Your task to perform on an android device: show emergency info Image 0: 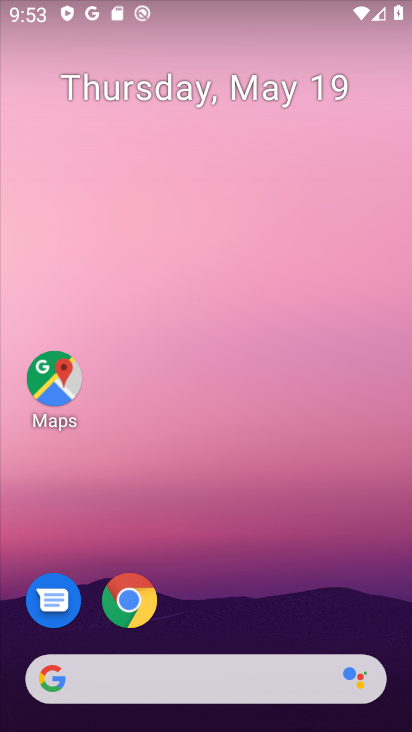
Step 0: drag from (276, 553) to (210, 1)
Your task to perform on an android device: show emergency info Image 1: 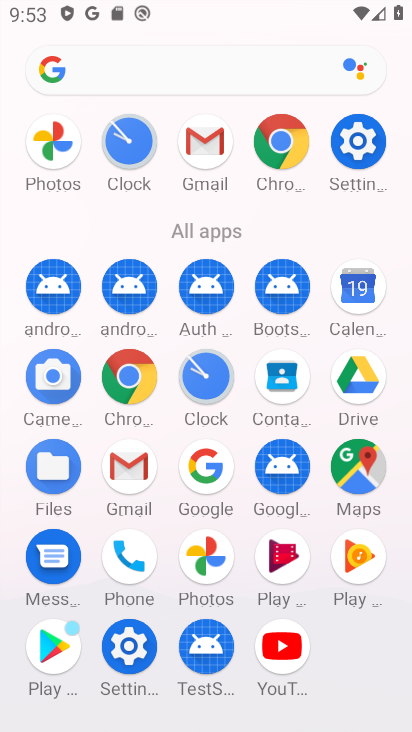
Step 1: click (124, 643)
Your task to perform on an android device: show emergency info Image 2: 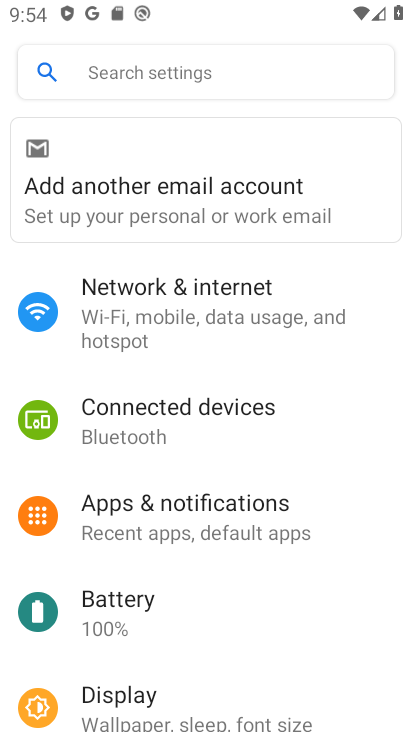
Step 2: drag from (175, 621) to (220, 127)
Your task to perform on an android device: show emergency info Image 3: 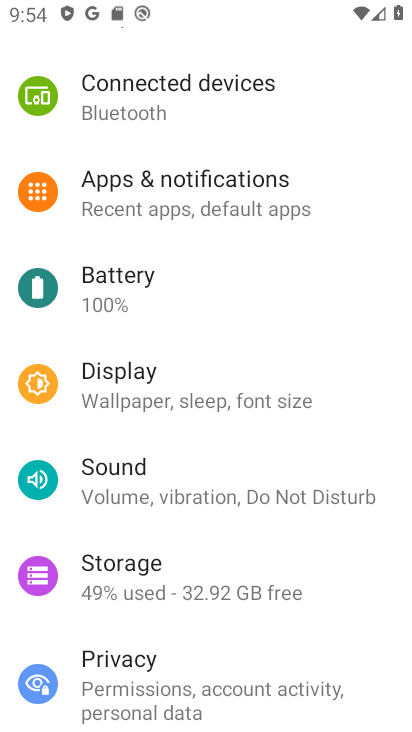
Step 3: drag from (279, 589) to (270, 110)
Your task to perform on an android device: show emergency info Image 4: 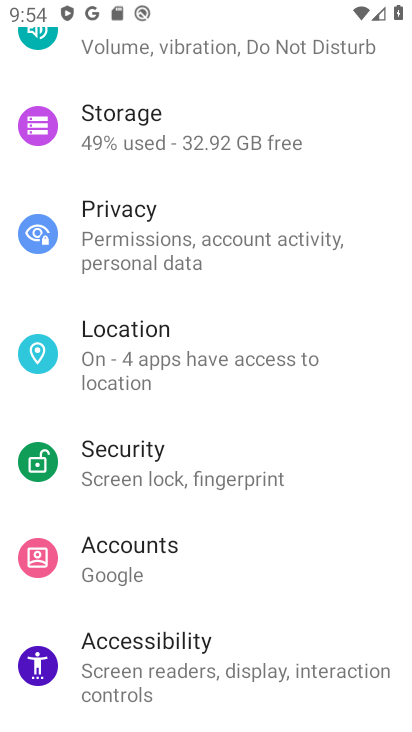
Step 4: drag from (254, 609) to (251, 139)
Your task to perform on an android device: show emergency info Image 5: 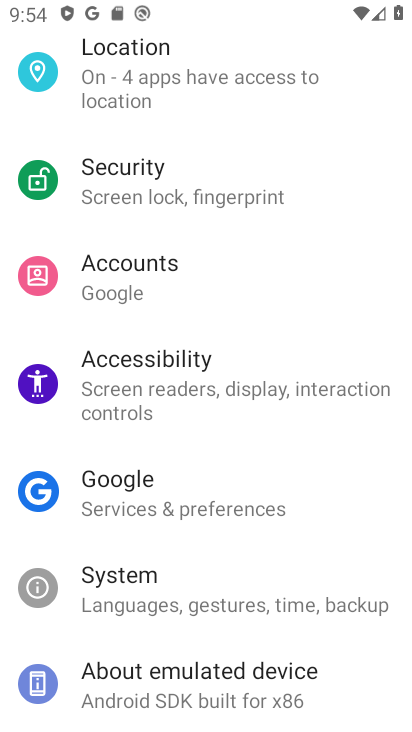
Step 5: drag from (280, 618) to (278, 147)
Your task to perform on an android device: show emergency info Image 6: 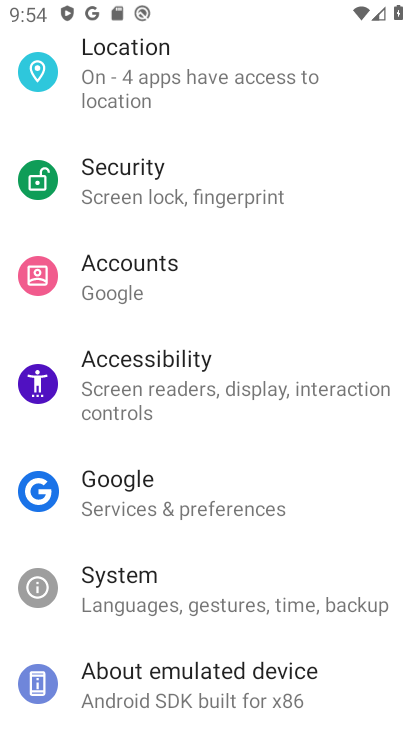
Step 6: click (174, 680)
Your task to perform on an android device: show emergency info Image 7: 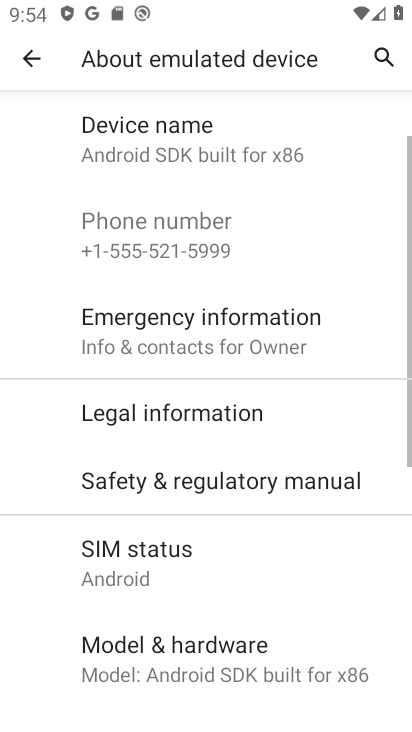
Step 7: drag from (223, 583) to (257, 144)
Your task to perform on an android device: show emergency info Image 8: 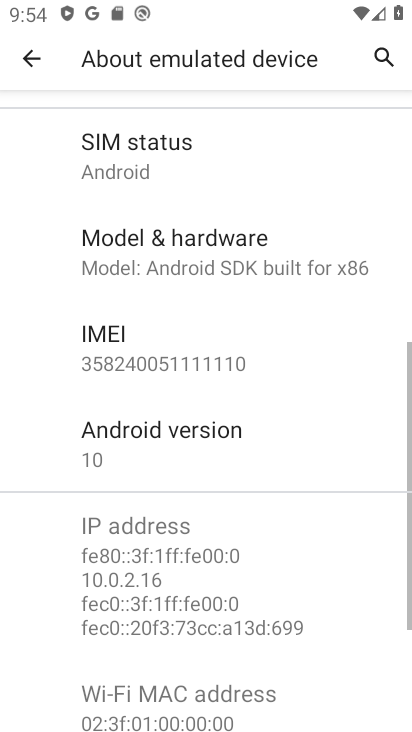
Step 8: drag from (237, 637) to (274, 123)
Your task to perform on an android device: show emergency info Image 9: 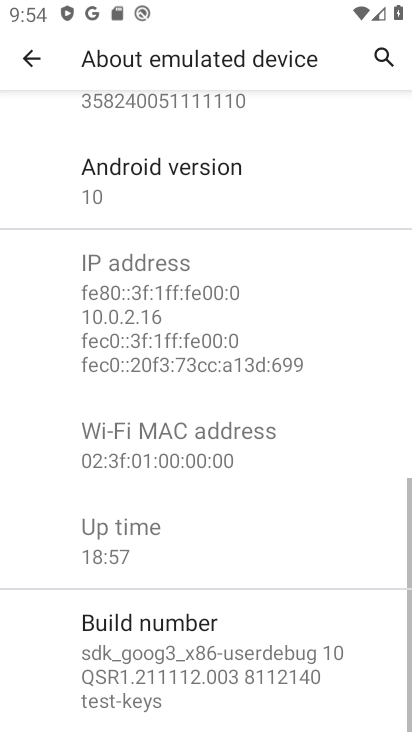
Step 9: drag from (253, 572) to (259, 162)
Your task to perform on an android device: show emergency info Image 10: 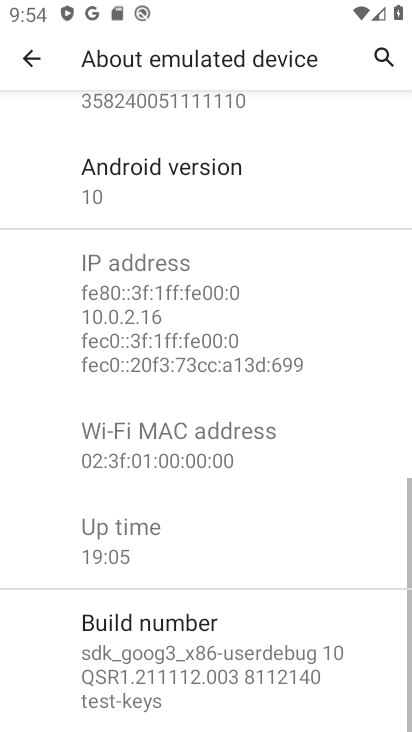
Step 10: drag from (147, 195) to (194, 601)
Your task to perform on an android device: show emergency info Image 11: 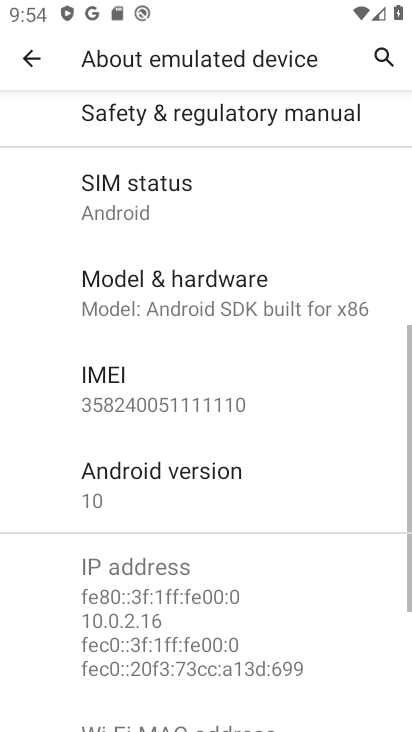
Step 11: drag from (251, 122) to (292, 567)
Your task to perform on an android device: show emergency info Image 12: 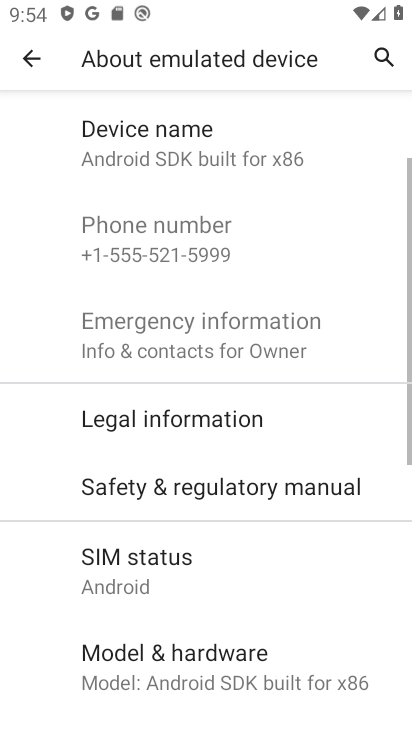
Step 12: drag from (254, 127) to (261, 580)
Your task to perform on an android device: show emergency info Image 13: 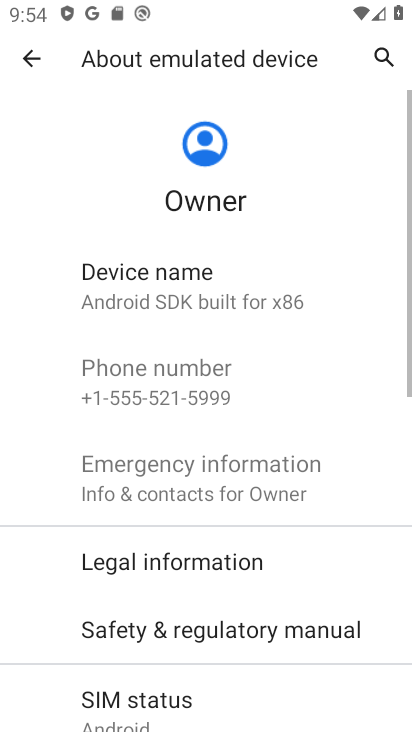
Step 13: click (31, 55)
Your task to perform on an android device: show emergency info Image 14: 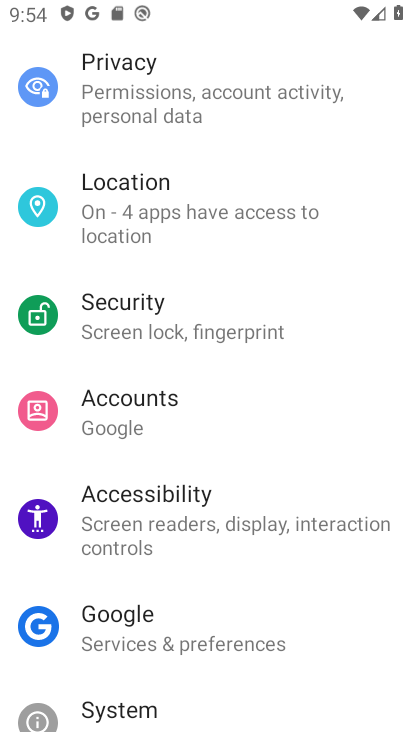
Step 14: drag from (264, 667) to (271, 266)
Your task to perform on an android device: show emergency info Image 15: 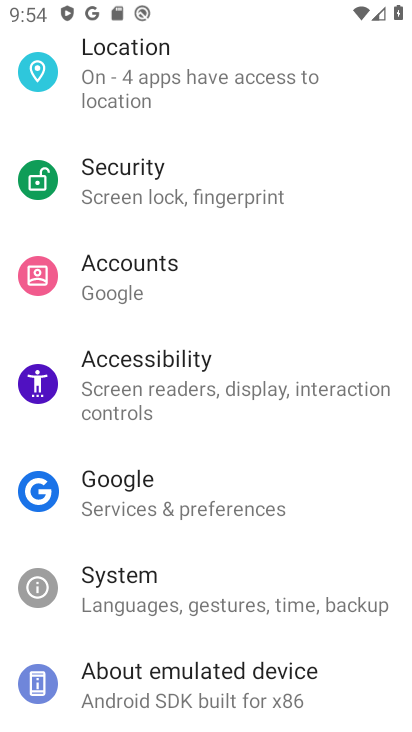
Step 15: click (251, 674)
Your task to perform on an android device: show emergency info Image 16: 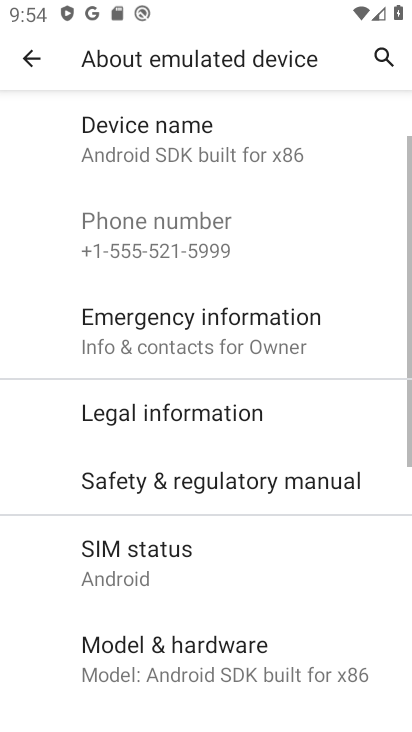
Step 16: click (249, 340)
Your task to perform on an android device: show emergency info Image 17: 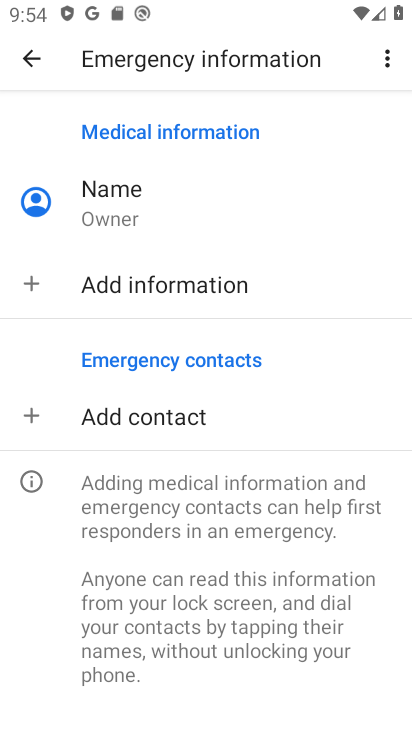
Step 17: task complete